Your task to perform on an android device: turn off translation in the chrome app Image 0: 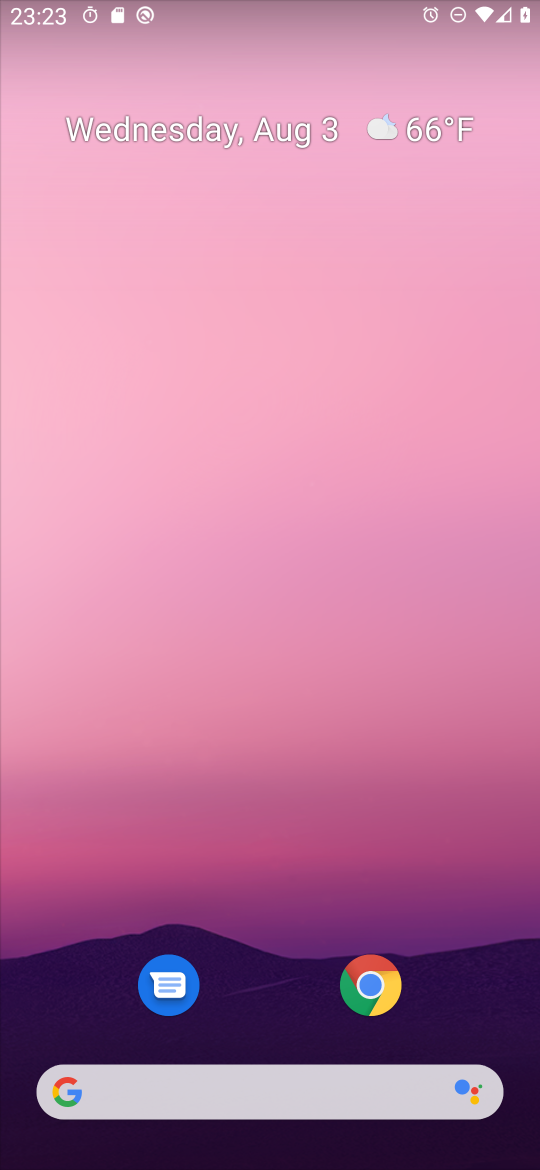
Step 0: click (352, 992)
Your task to perform on an android device: turn off translation in the chrome app Image 1: 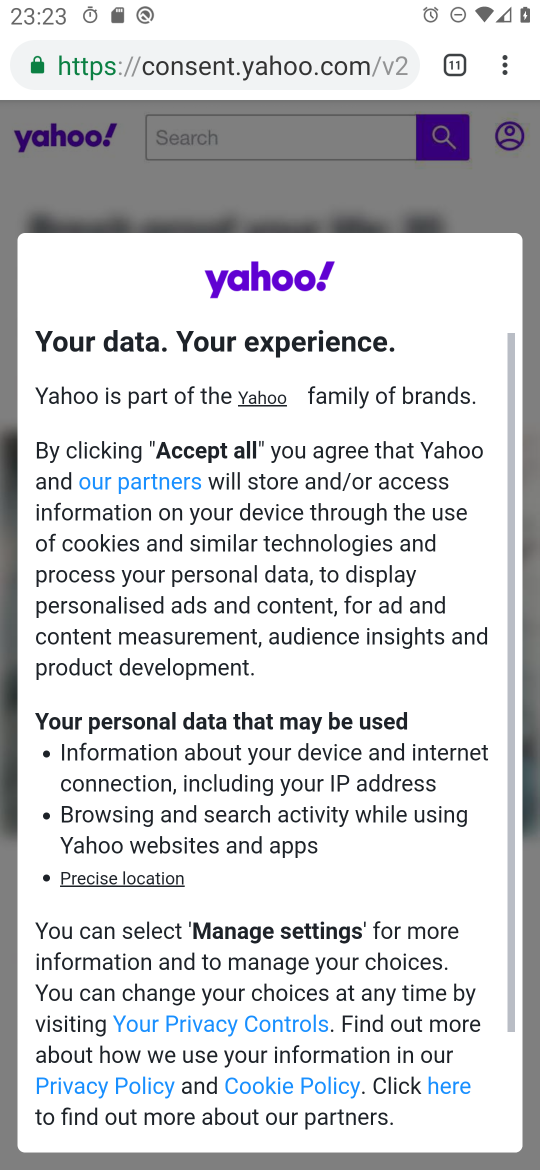
Step 1: click (515, 66)
Your task to perform on an android device: turn off translation in the chrome app Image 2: 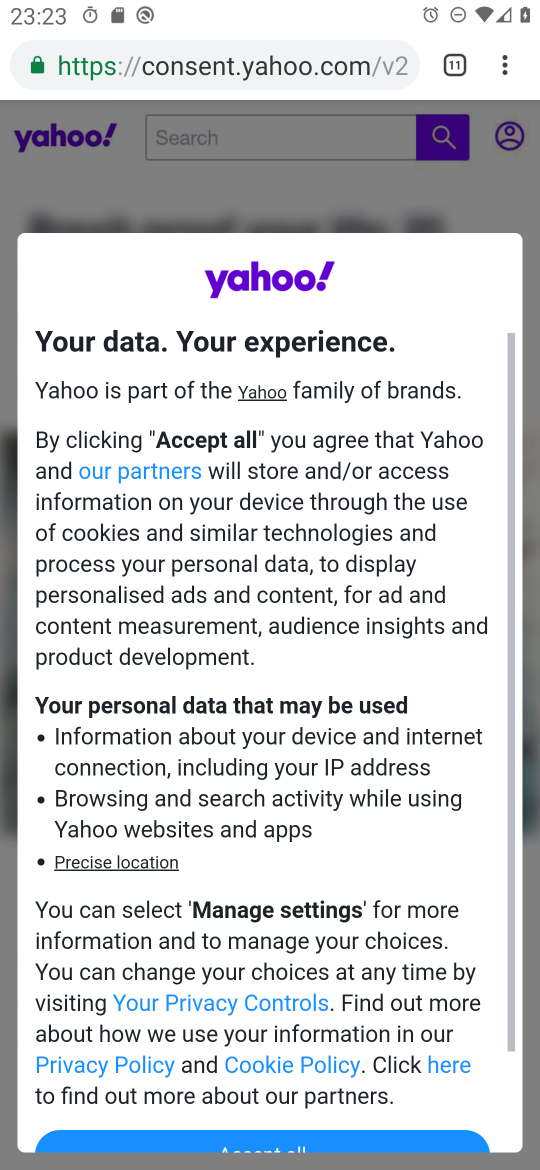
Step 2: click (505, 60)
Your task to perform on an android device: turn off translation in the chrome app Image 3: 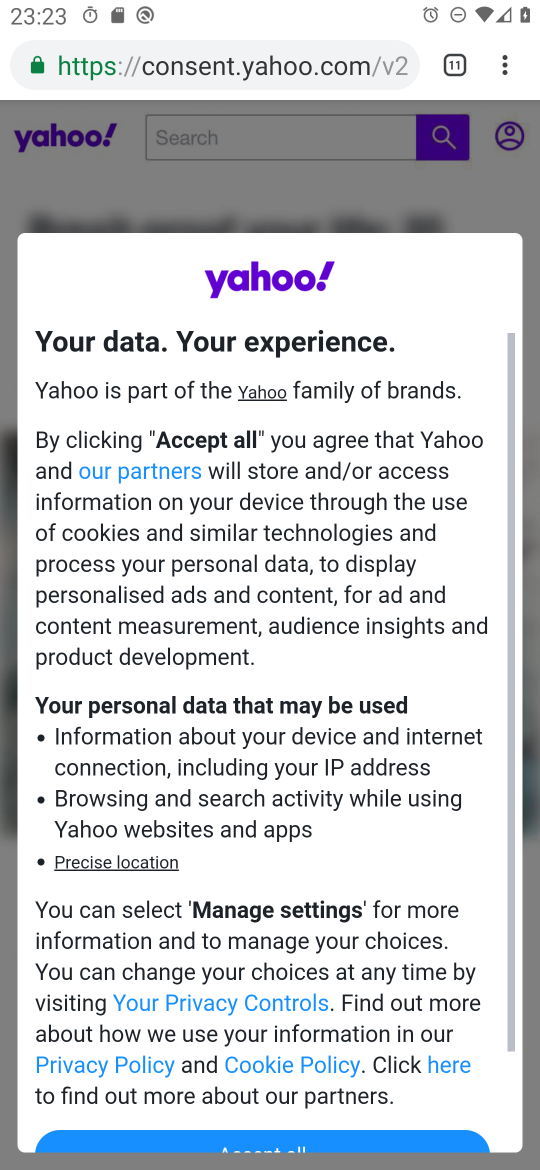
Step 3: drag from (506, 73) to (328, 798)
Your task to perform on an android device: turn off translation in the chrome app Image 4: 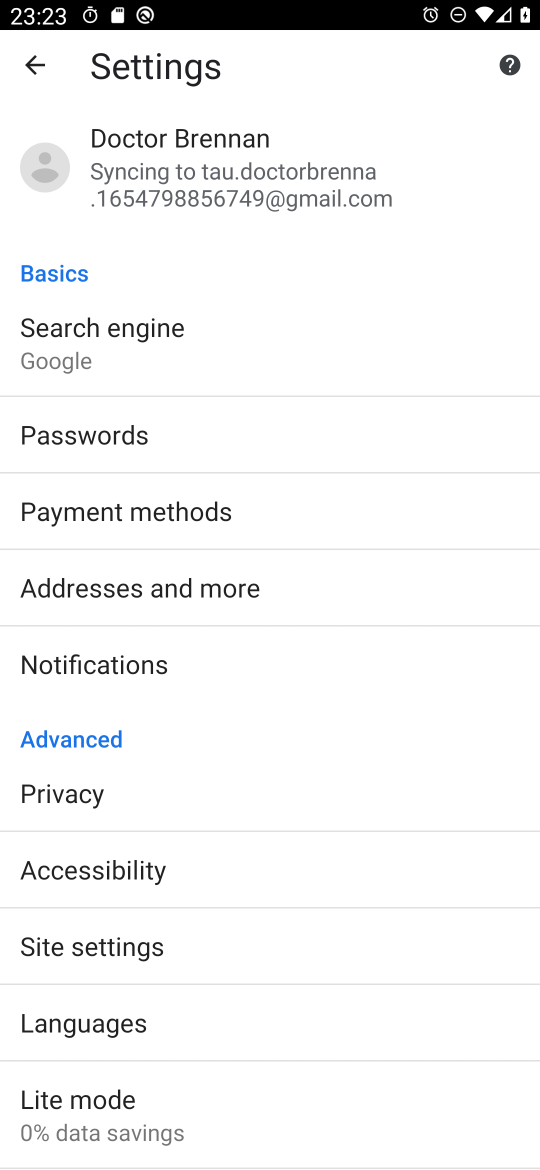
Step 4: click (117, 1000)
Your task to perform on an android device: turn off translation in the chrome app Image 5: 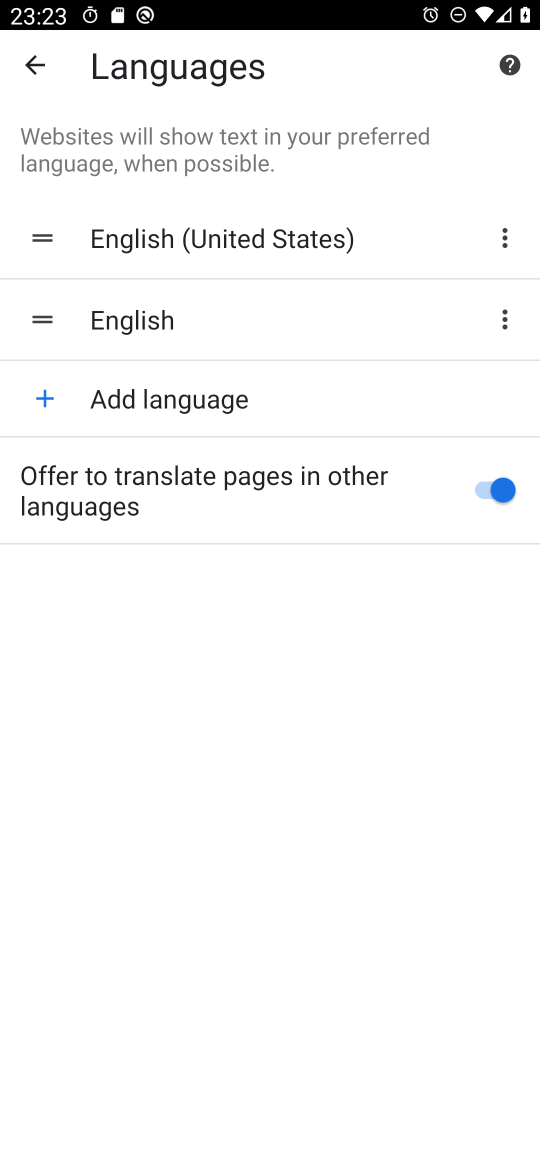
Step 5: click (495, 484)
Your task to perform on an android device: turn off translation in the chrome app Image 6: 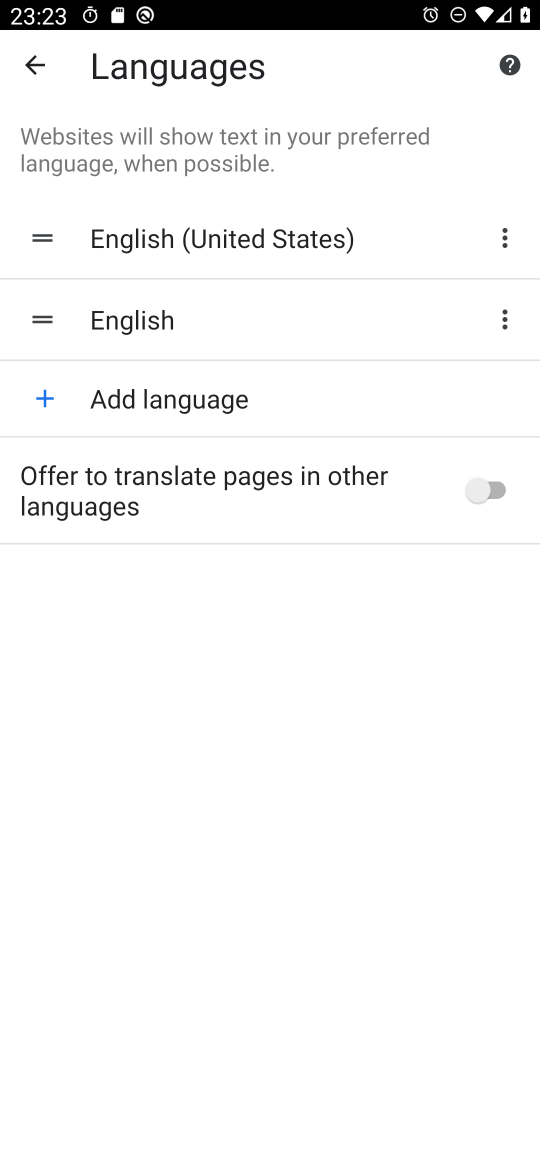
Step 6: task complete